Your task to perform on an android device: open sync settings in chrome Image 0: 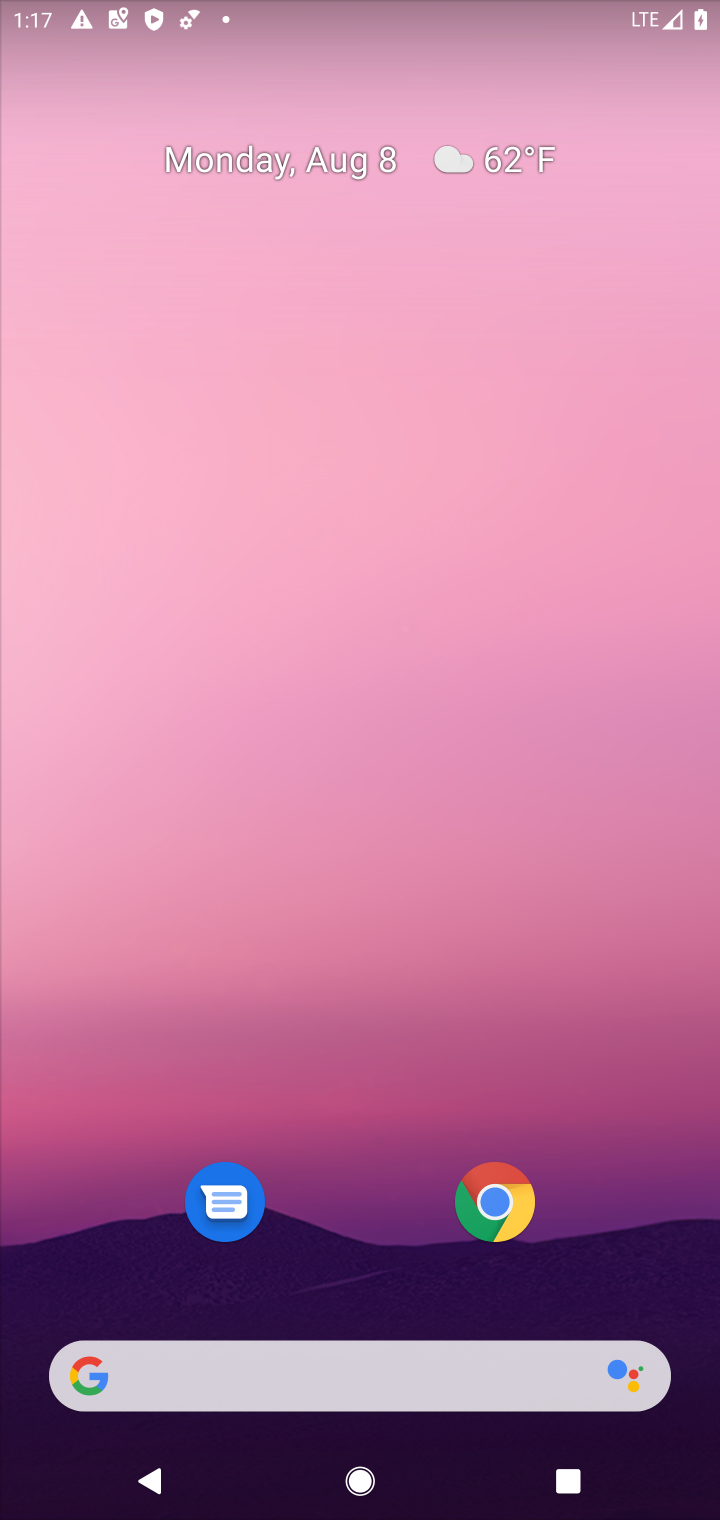
Step 0: click (499, 1205)
Your task to perform on an android device: open sync settings in chrome Image 1: 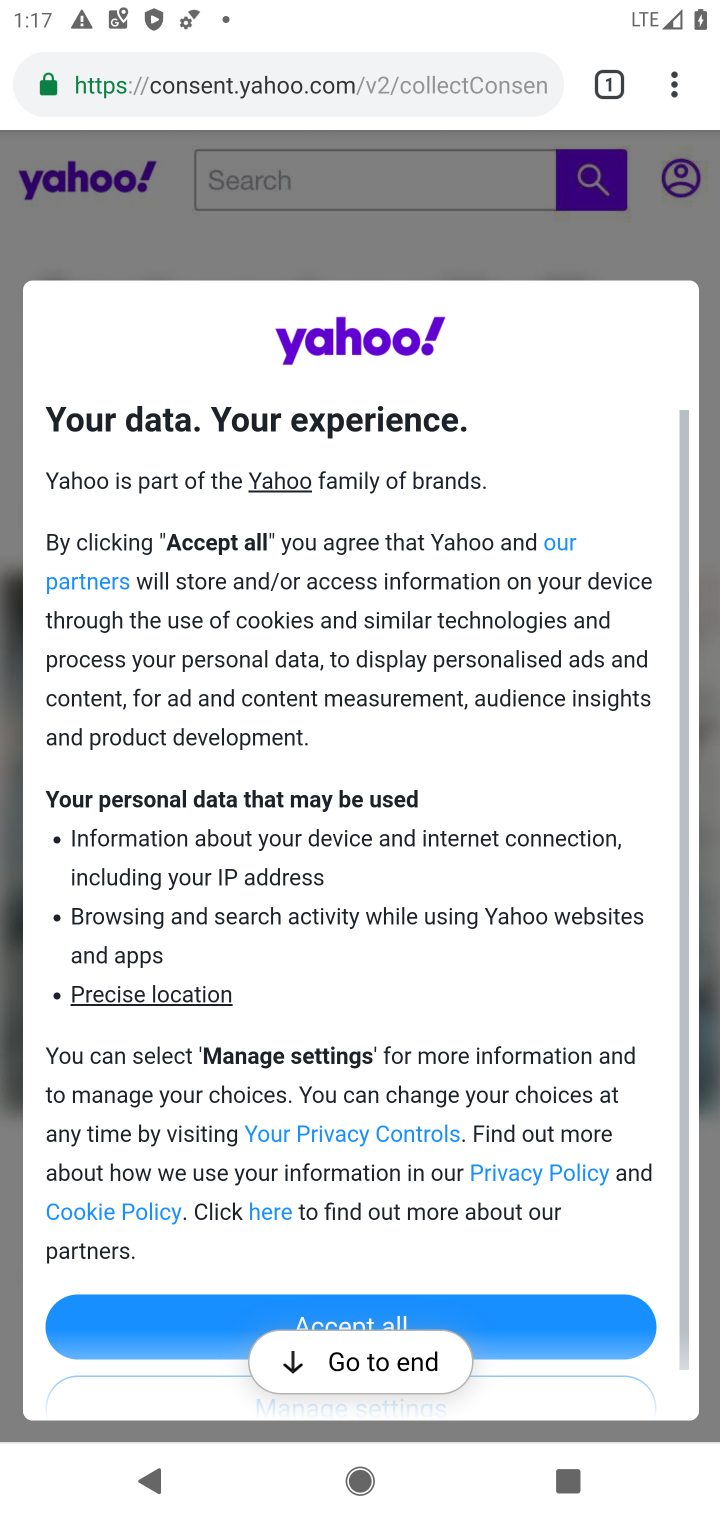
Step 1: click (677, 90)
Your task to perform on an android device: open sync settings in chrome Image 2: 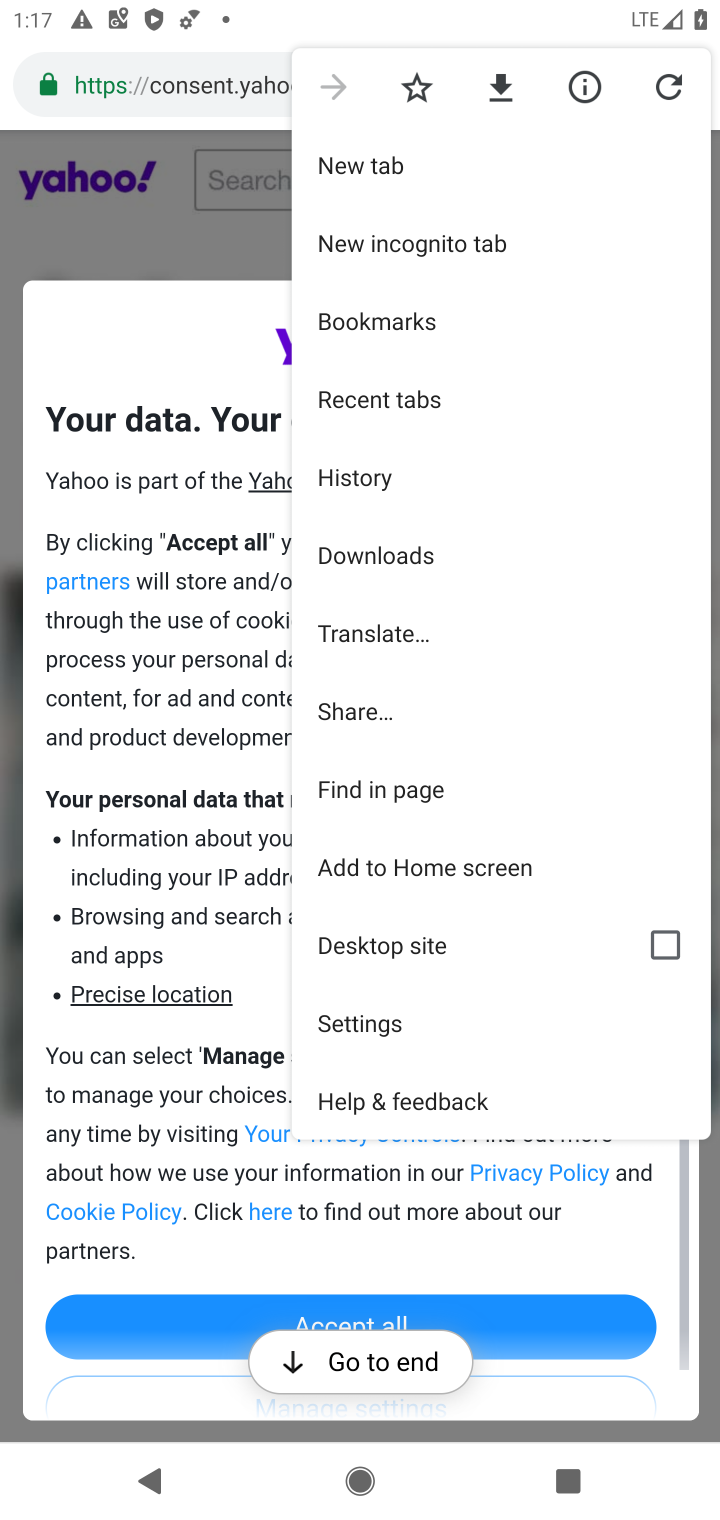
Step 2: click (383, 1029)
Your task to perform on an android device: open sync settings in chrome Image 3: 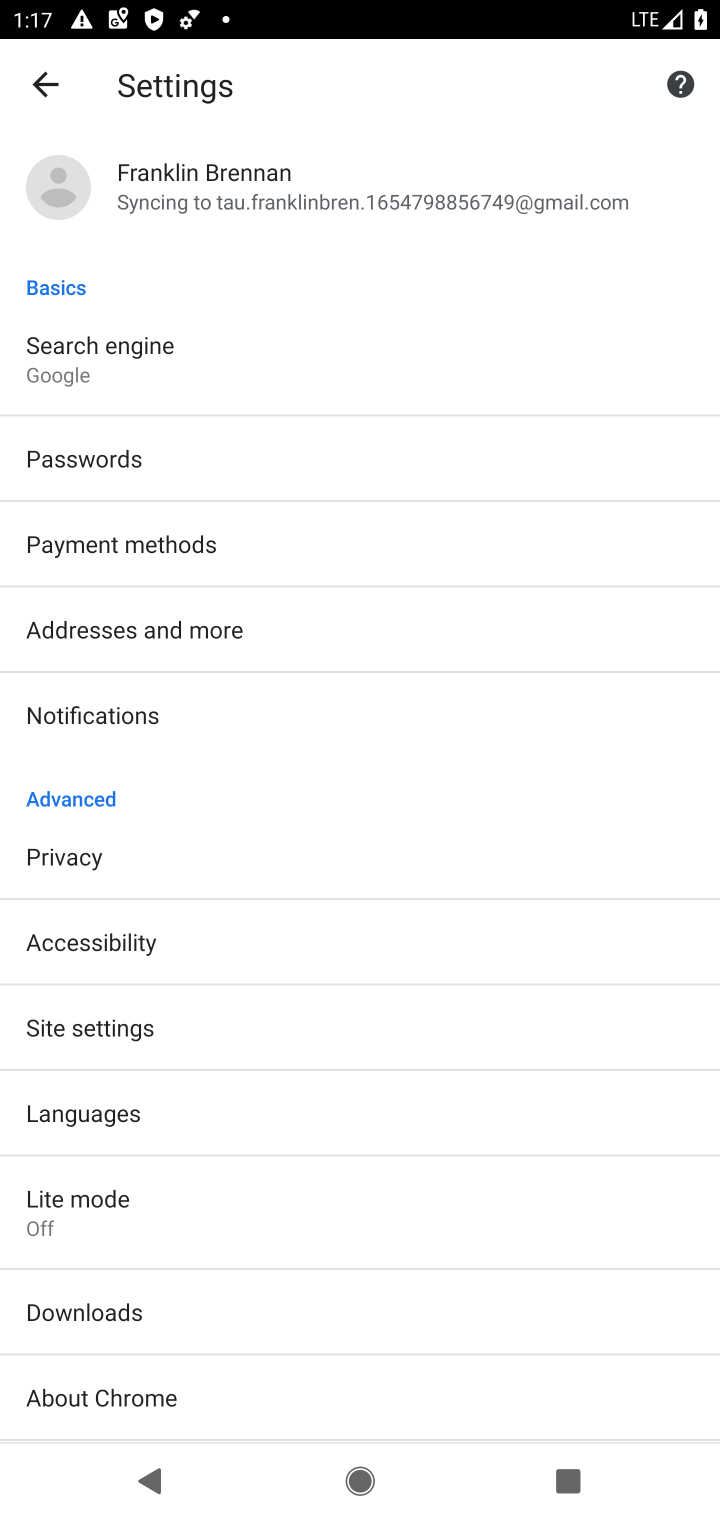
Step 3: click (370, 217)
Your task to perform on an android device: open sync settings in chrome Image 4: 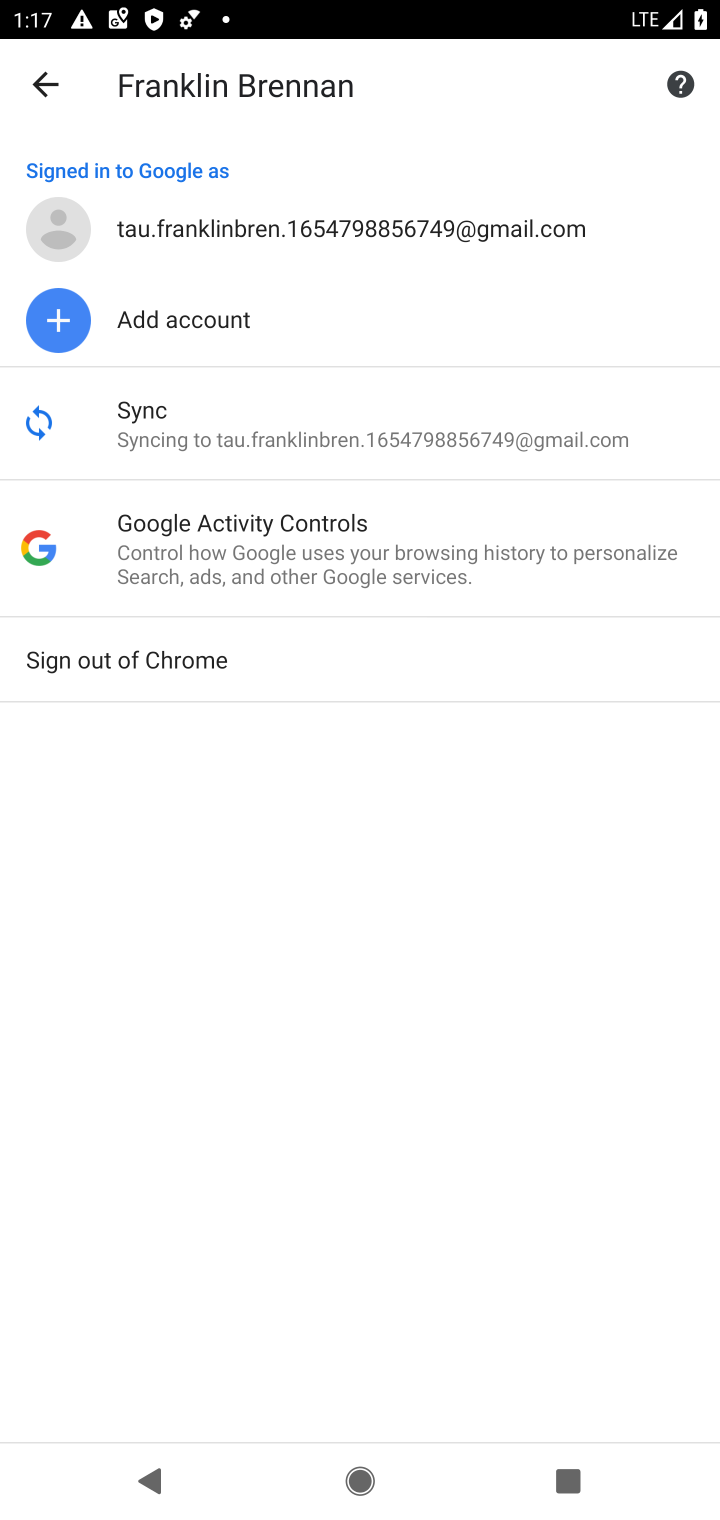
Step 4: click (183, 431)
Your task to perform on an android device: open sync settings in chrome Image 5: 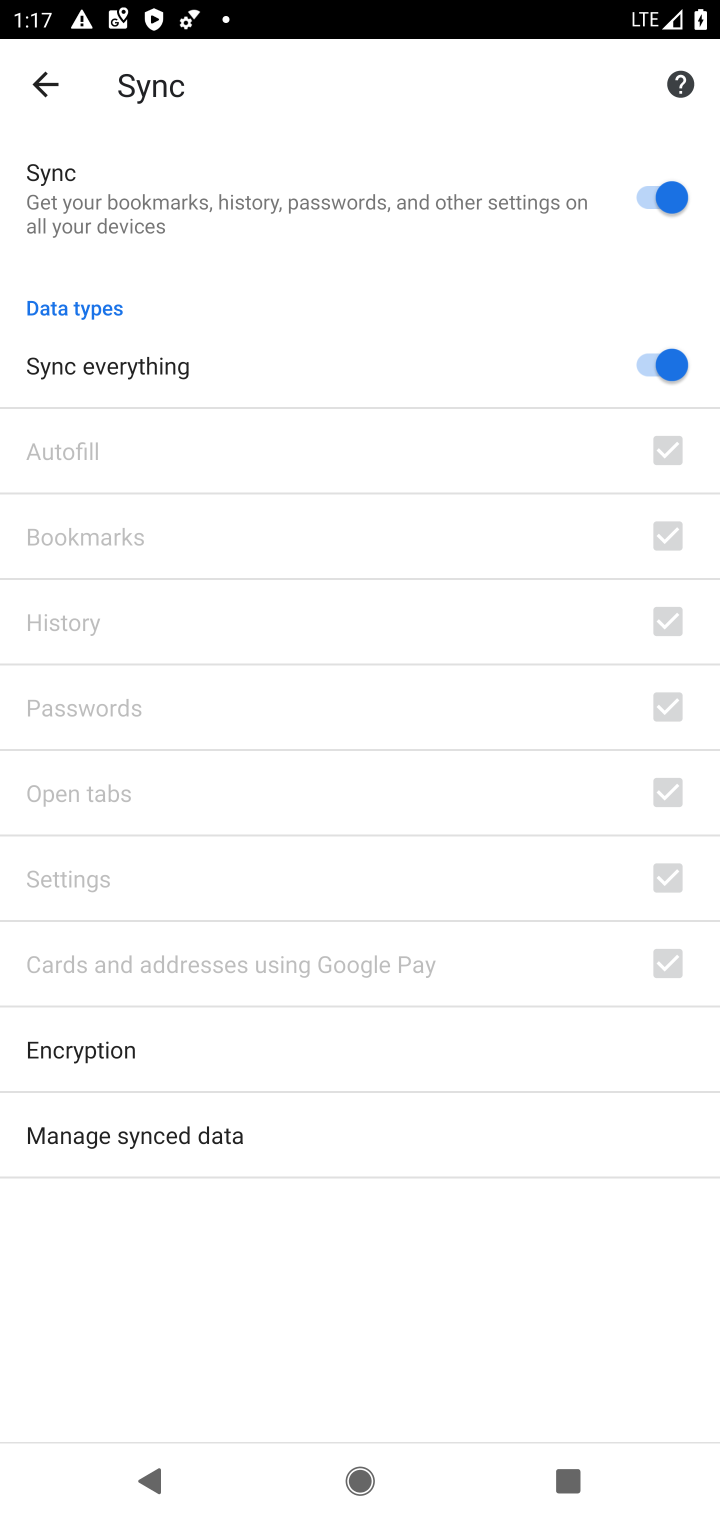
Step 5: task complete